Your task to perform on an android device: open app "Roku - Official Remote Control" Image 0: 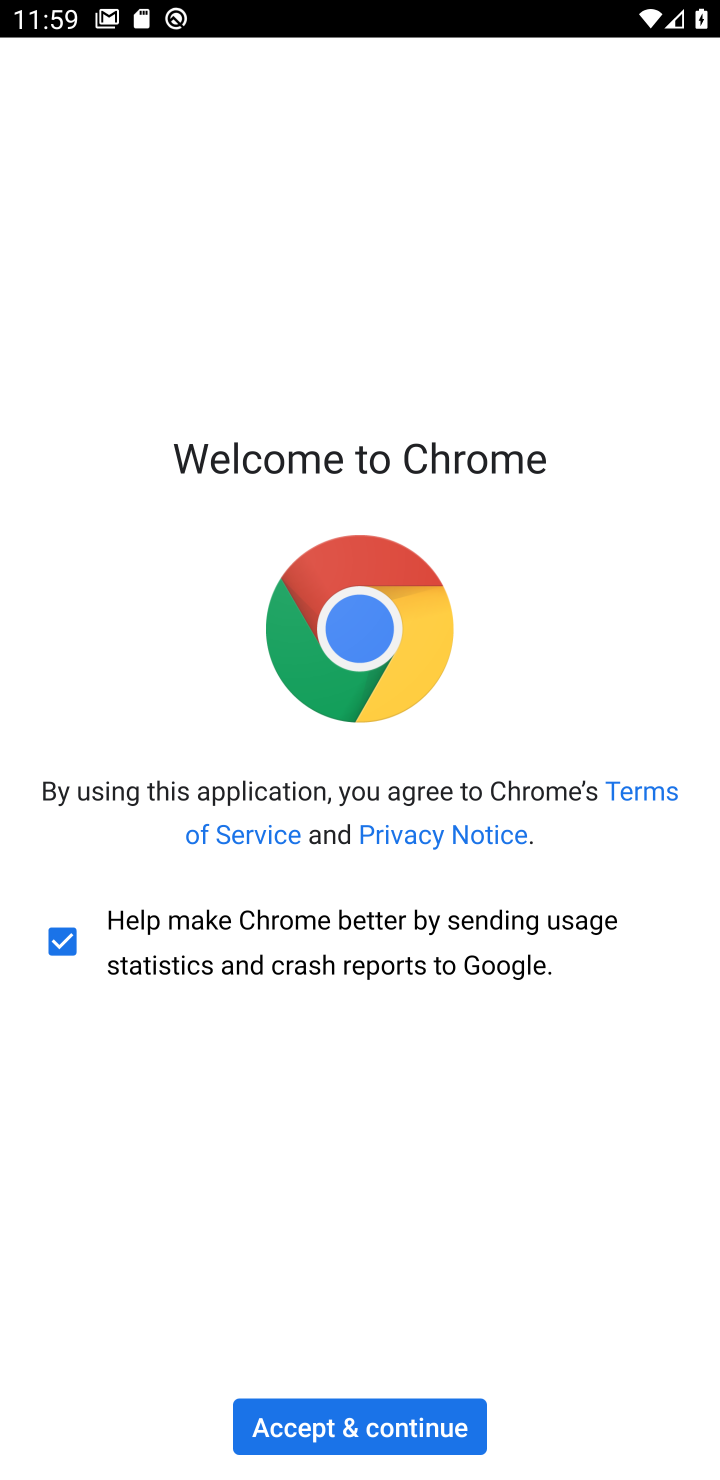
Step 0: press home button
Your task to perform on an android device: open app "Roku - Official Remote Control" Image 1: 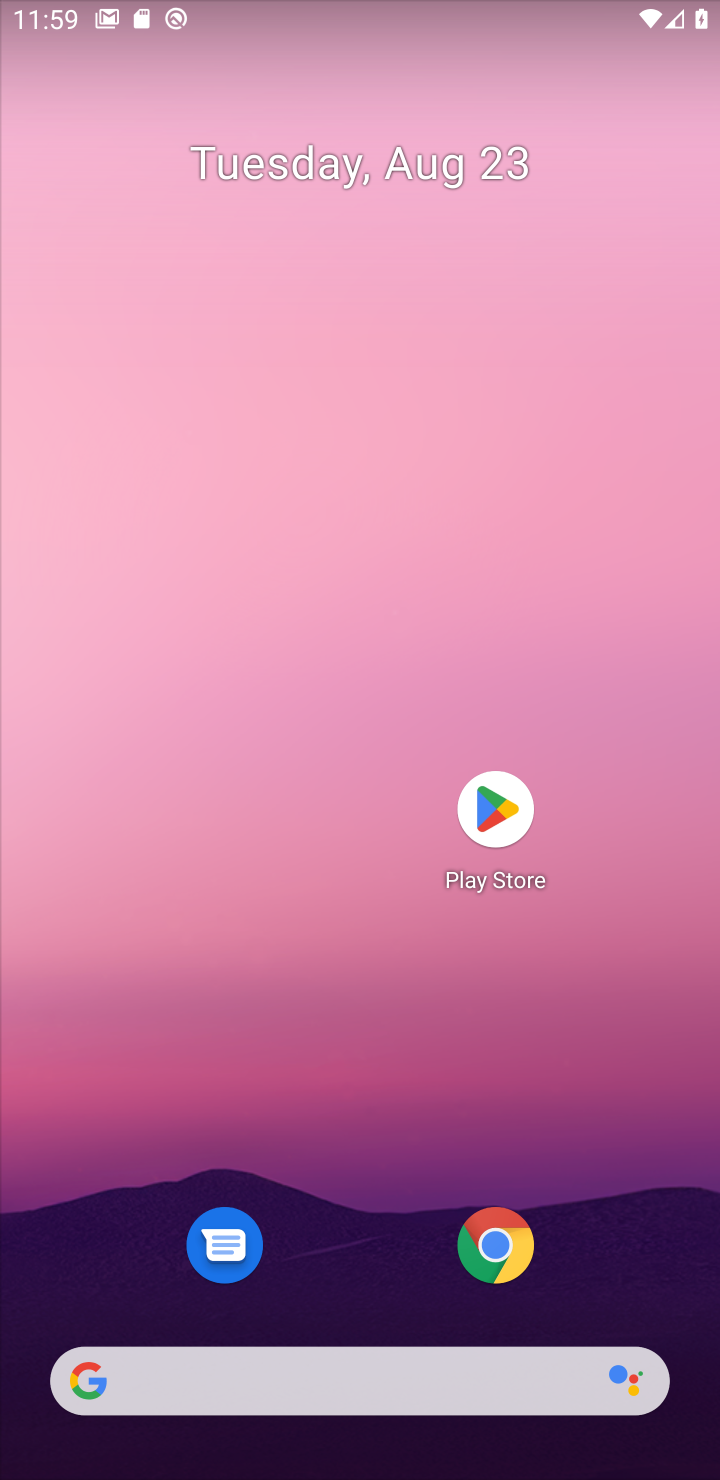
Step 1: click (508, 808)
Your task to perform on an android device: open app "Roku - Official Remote Control" Image 2: 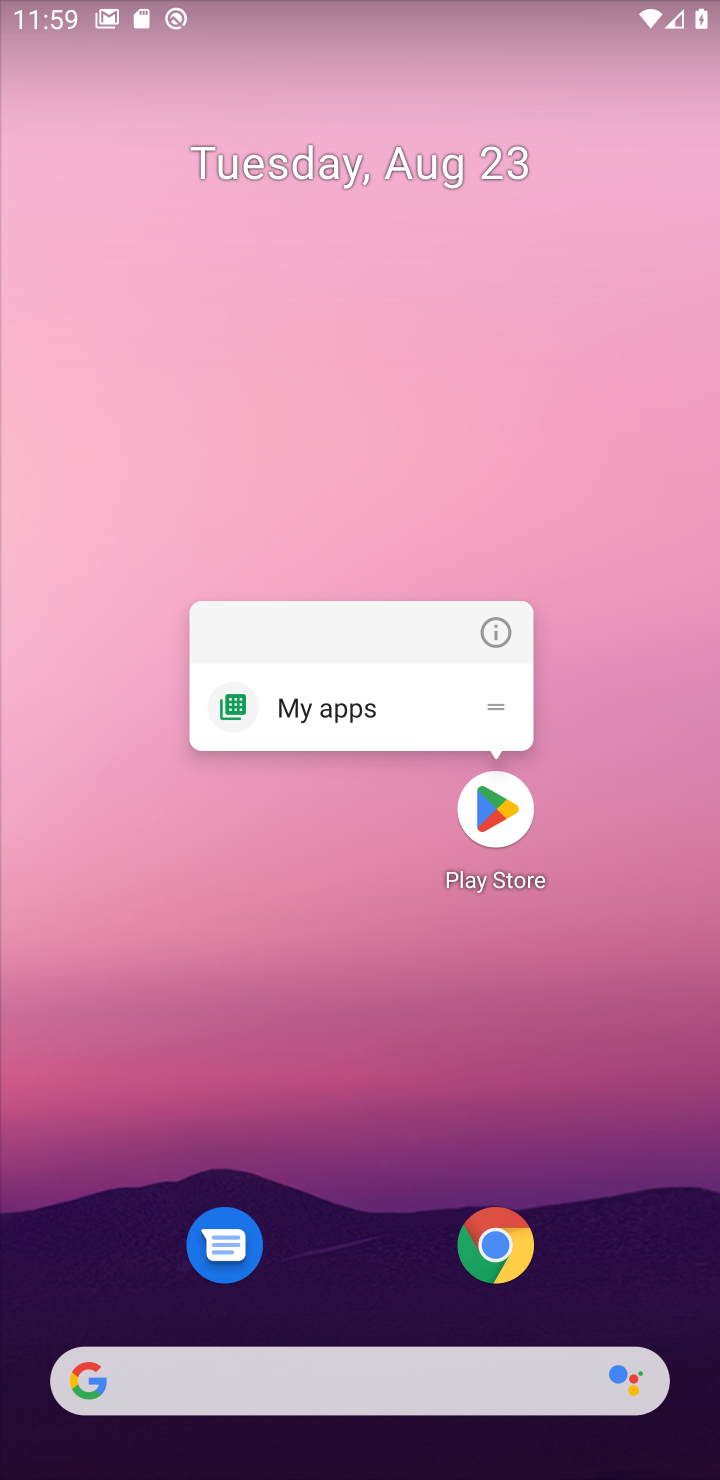
Step 2: click (508, 815)
Your task to perform on an android device: open app "Roku - Official Remote Control" Image 3: 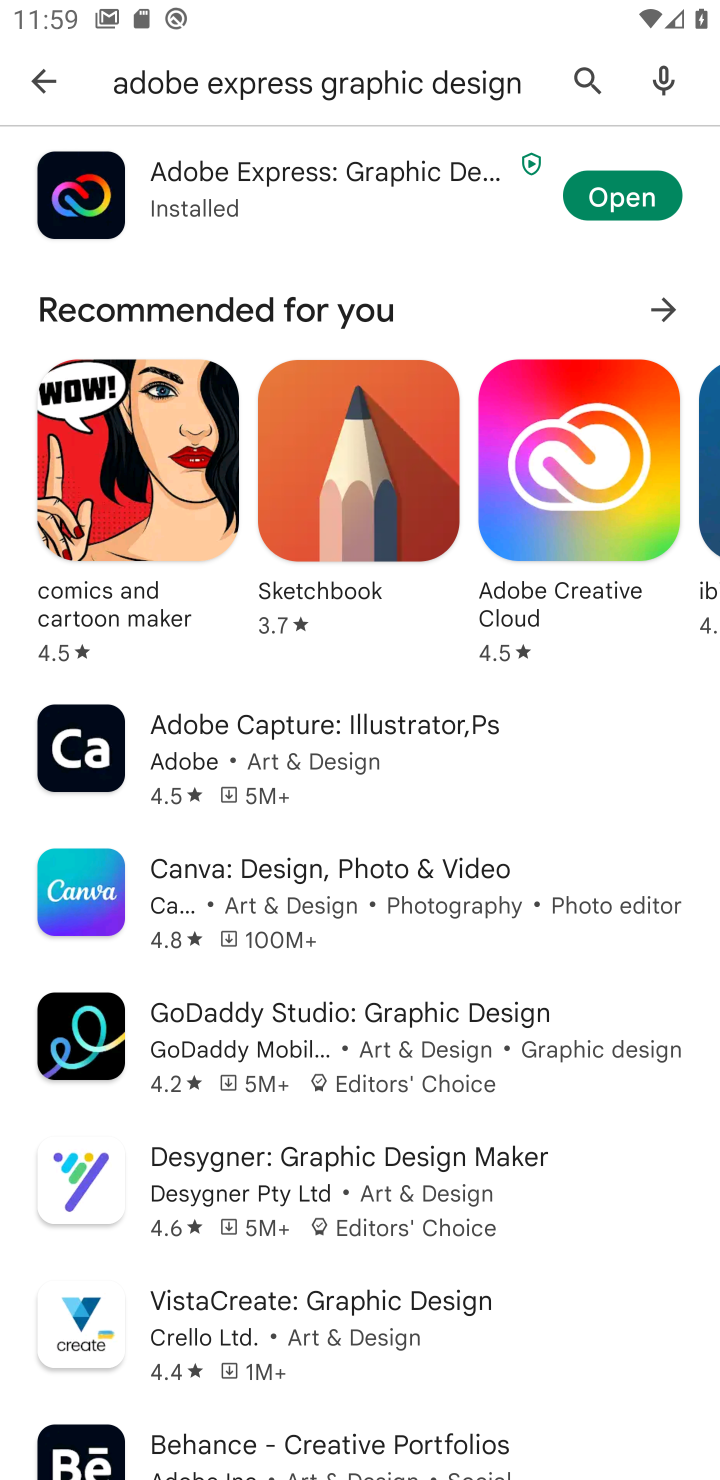
Step 3: click (579, 78)
Your task to perform on an android device: open app "Roku - Official Remote Control" Image 4: 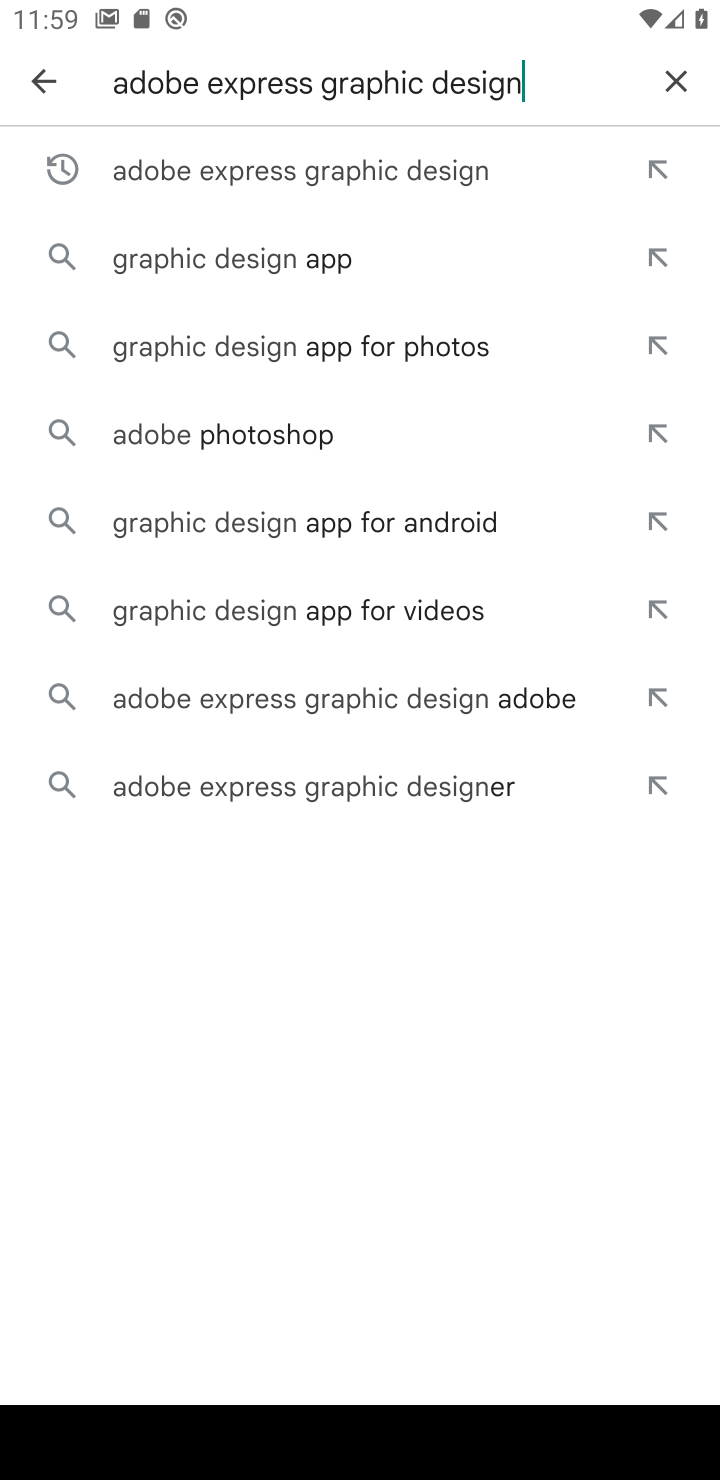
Step 4: click (674, 74)
Your task to perform on an android device: open app "Roku - Official Remote Control" Image 5: 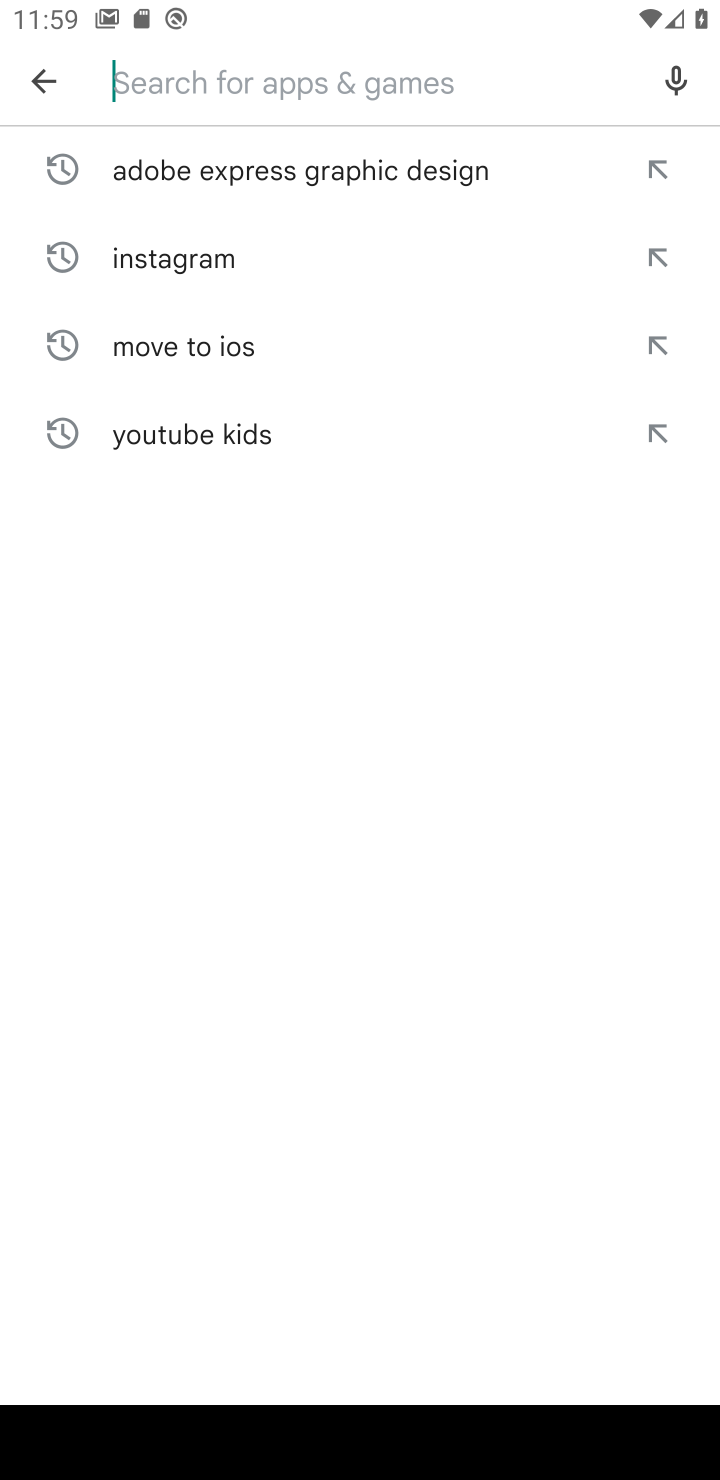
Step 5: type "Roku - Official Remote Control"
Your task to perform on an android device: open app "Roku - Official Remote Control" Image 6: 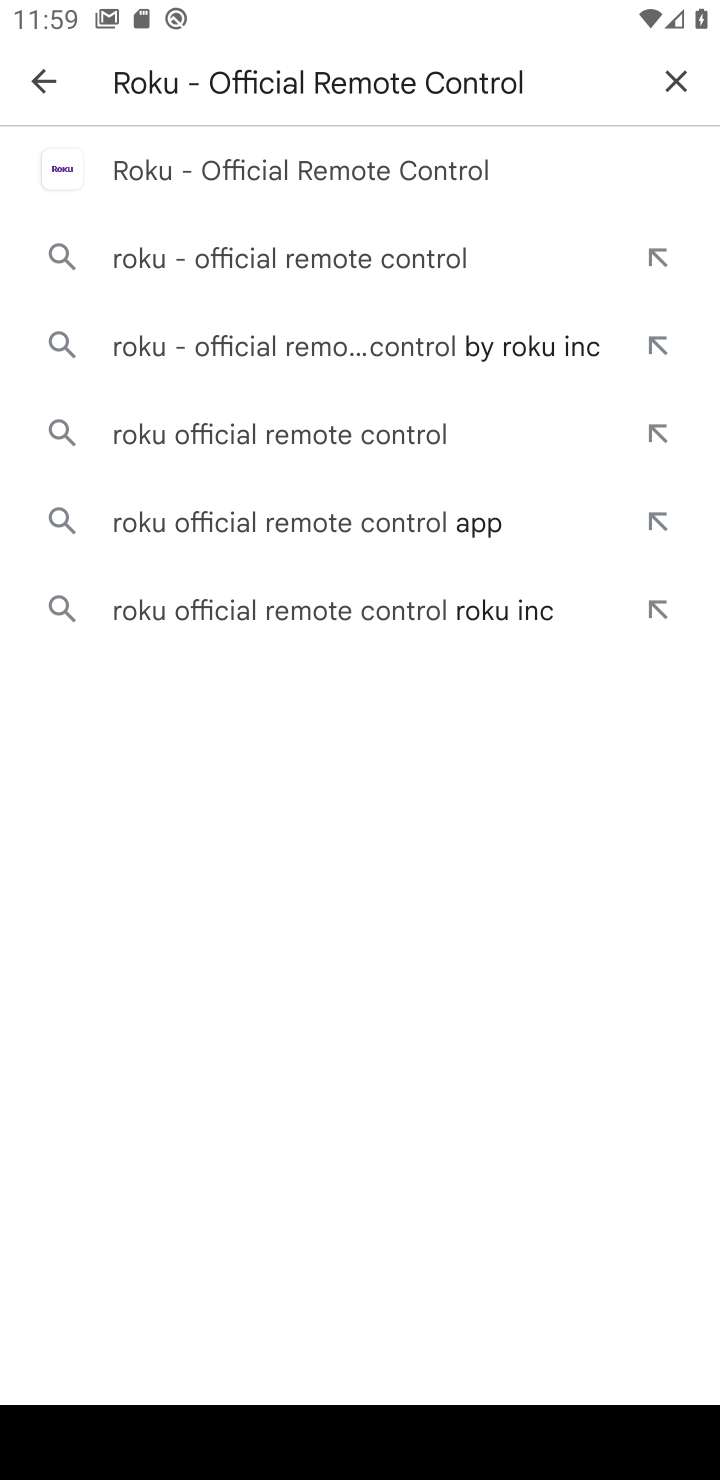
Step 6: click (392, 167)
Your task to perform on an android device: open app "Roku - Official Remote Control" Image 7: 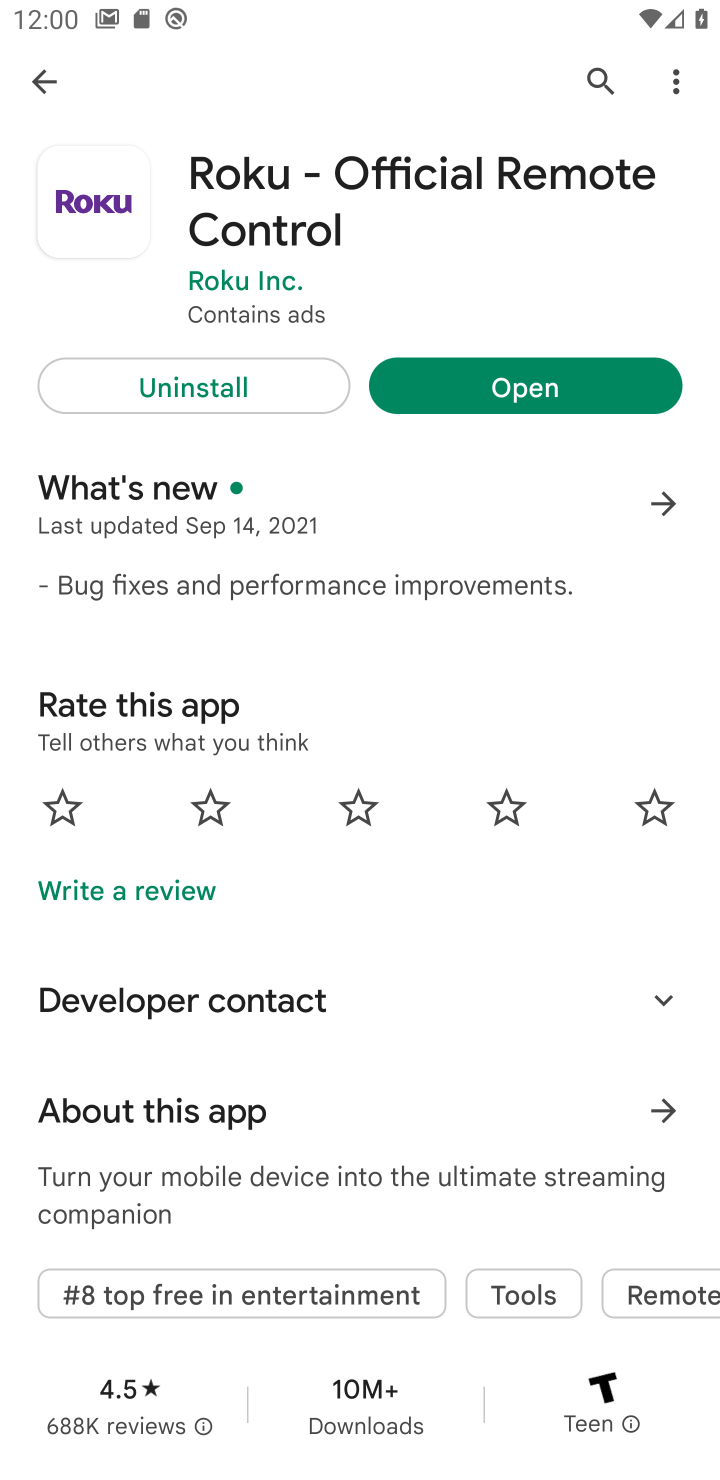
Step 7: click (516, 377)
Your task to perform on an android device: open app "Roku - Official Remote Control" Image 8: 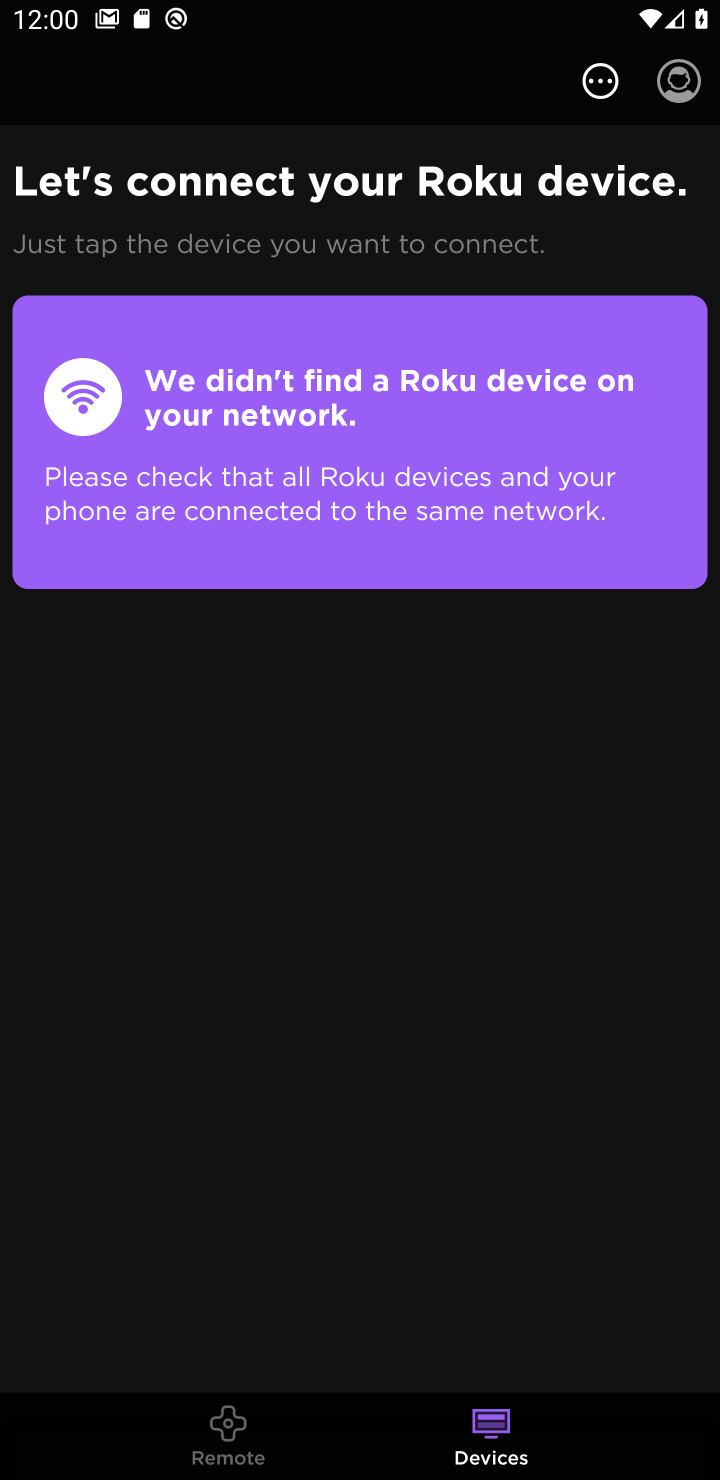
Step 8: task complete